Your task to perform on an android device: toggle improve location accuracy Image 0: 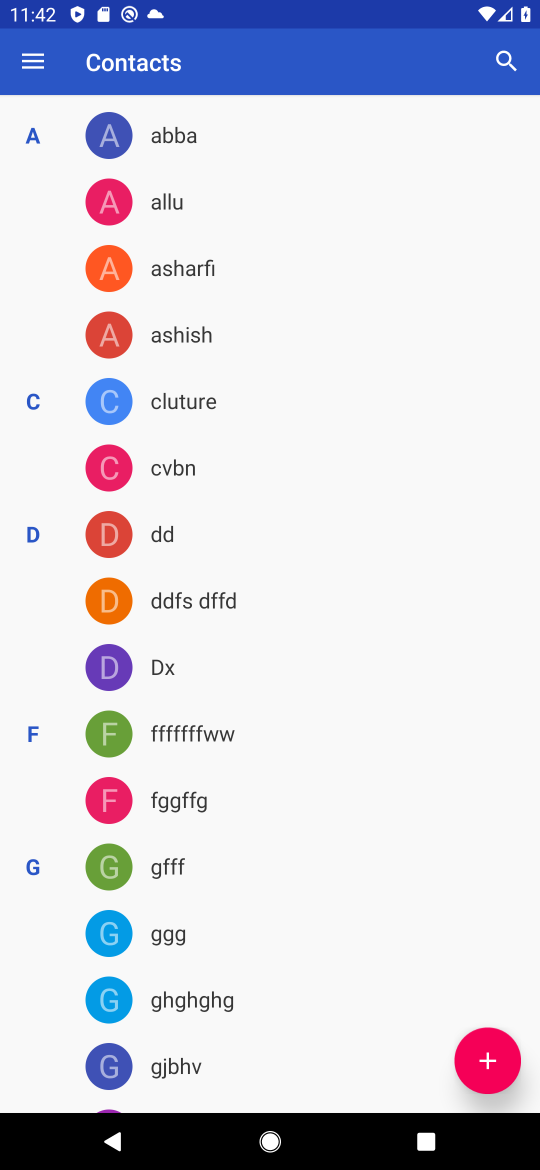
Step 0: press home button
Your task to perform on an android device: toggle improve location accuracy Image 1: 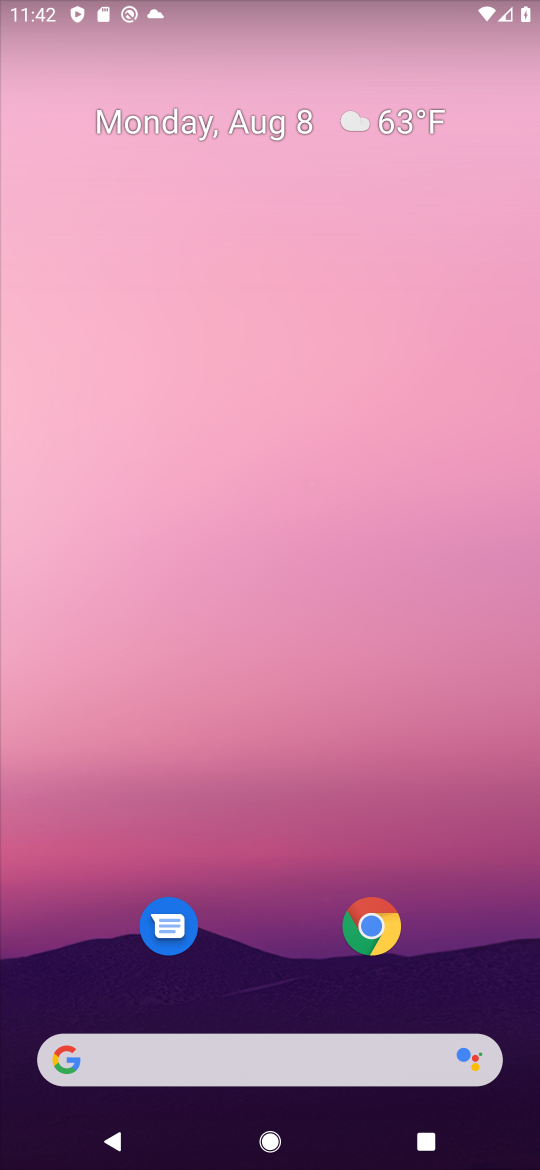
Step 1: drag from (32, 800) to (263, 121)
Your task to perform on an android device: toggle improve location accuracy Image 2: 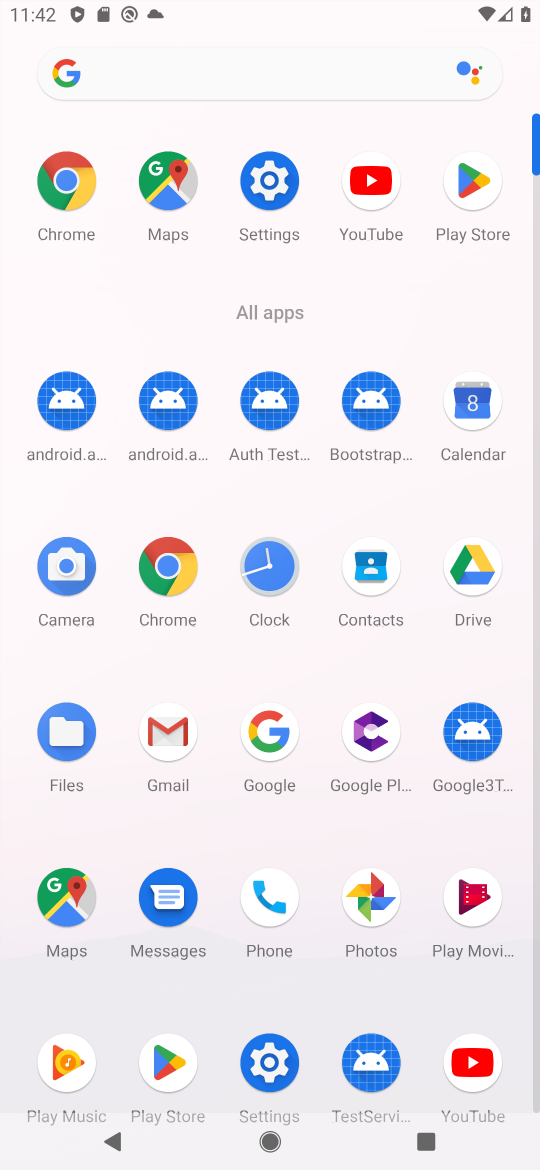
Step 2: click (271, 180)
Your task to perform on an android device: toggle improve location accuracy Image 3: 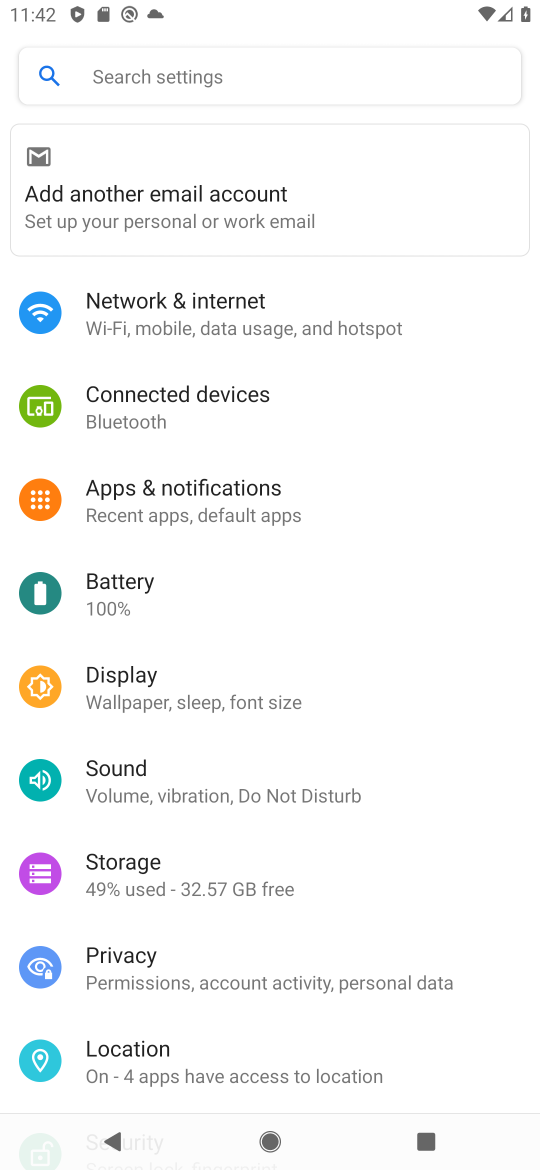
Step 3: click (151, 1046)
Your task to perform on an android device: toggle improve location accuracy Image 4: 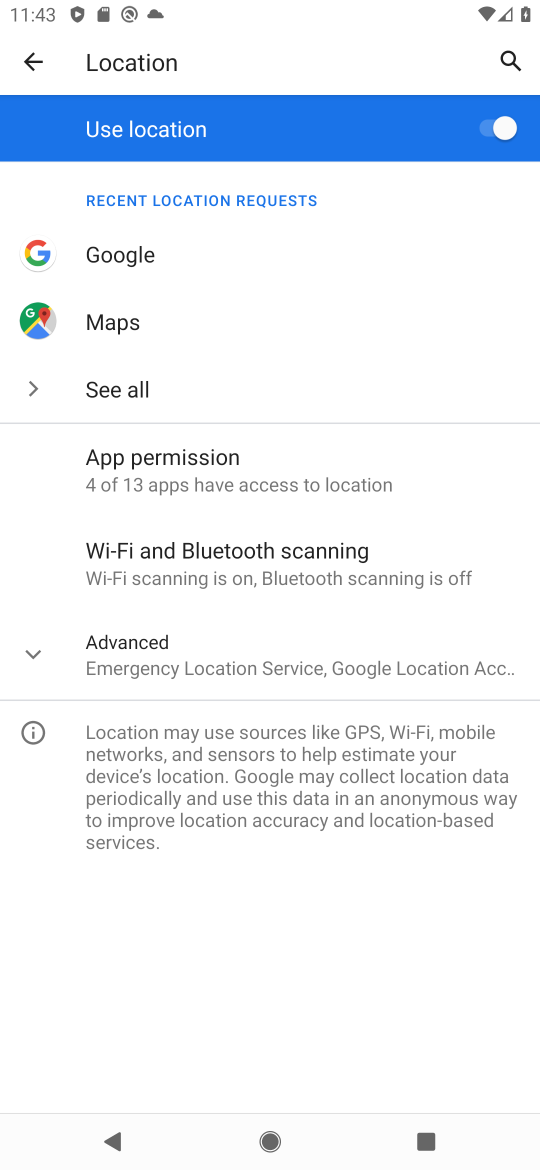
Step 4: click (224, 646)
Your task to perform on an android device: toggle improve location accuracy Image 5: 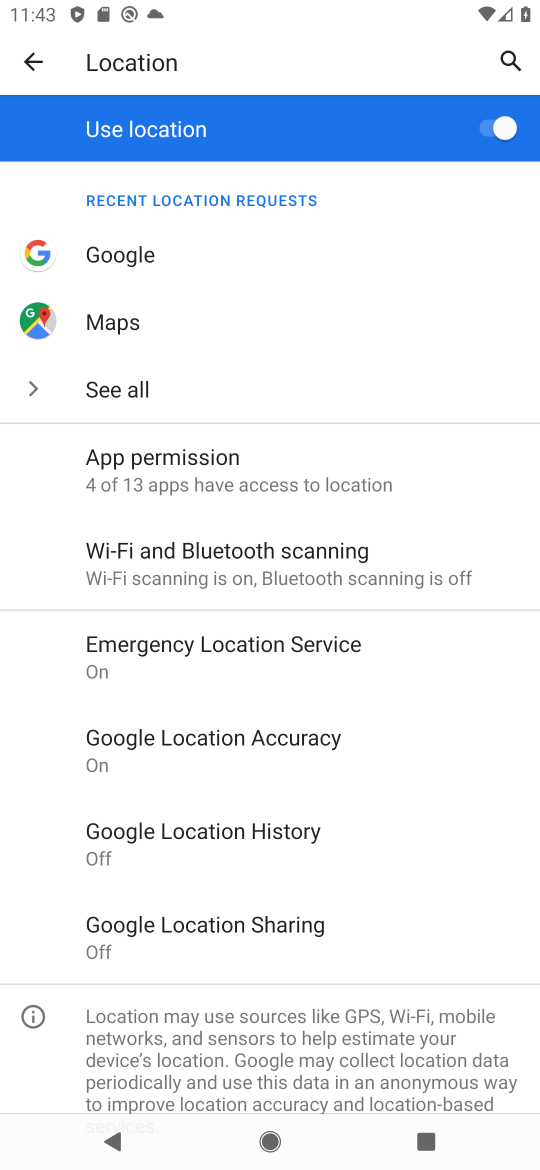
Step 5: click (268, 731)
Your task to perform on an android device: toggle improve location accuracy Image 6: 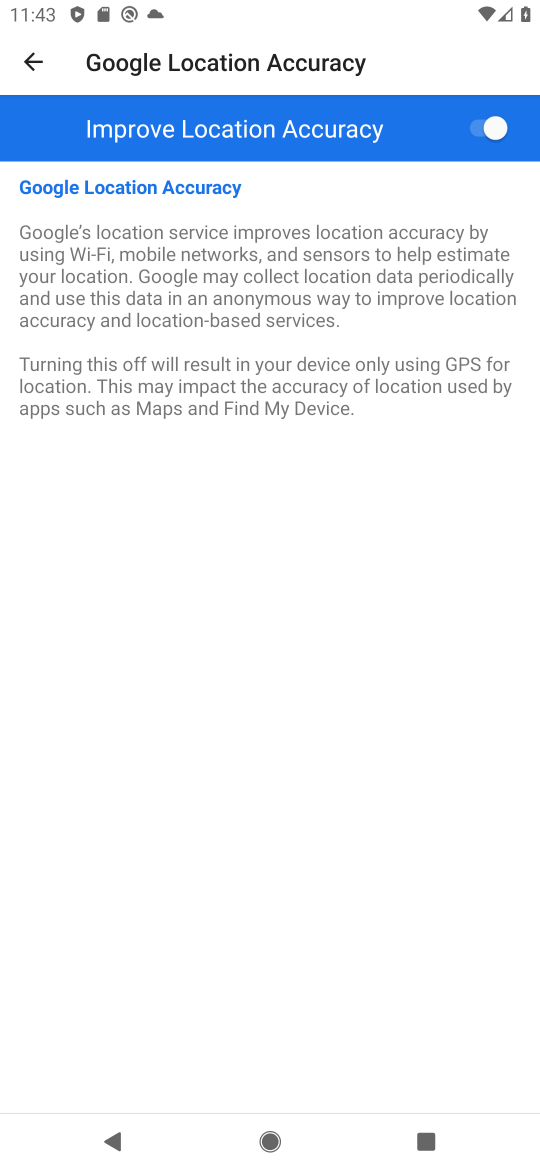
Step 6: click (495, 126)
Your task to perform on an android device: toggle improve location accuracy Image 7: 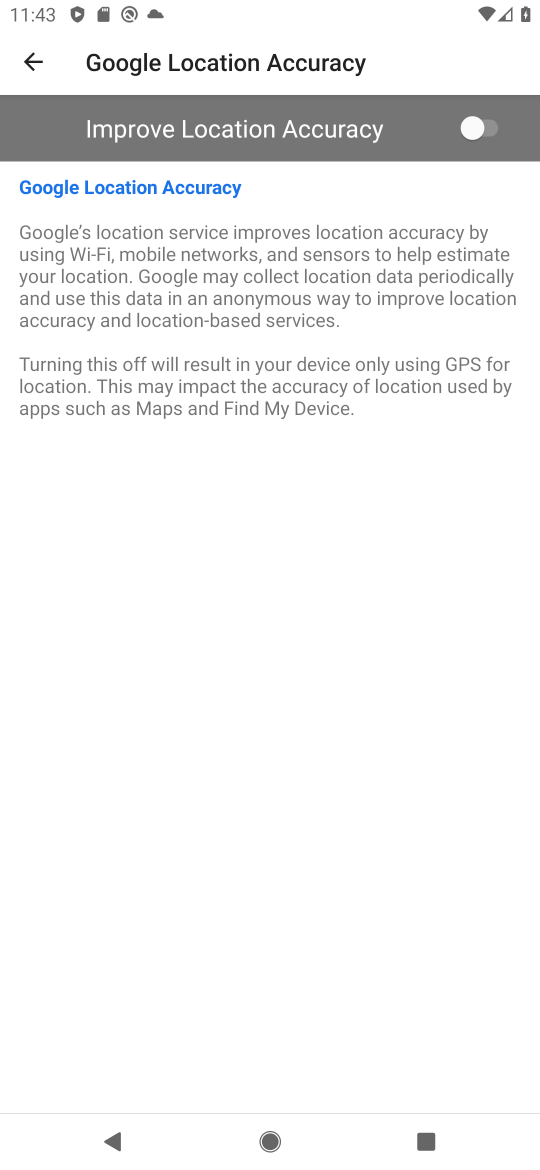
Step 7: task complete